Your task to perform on an android device: Do I have any events this weekend? Image 0: 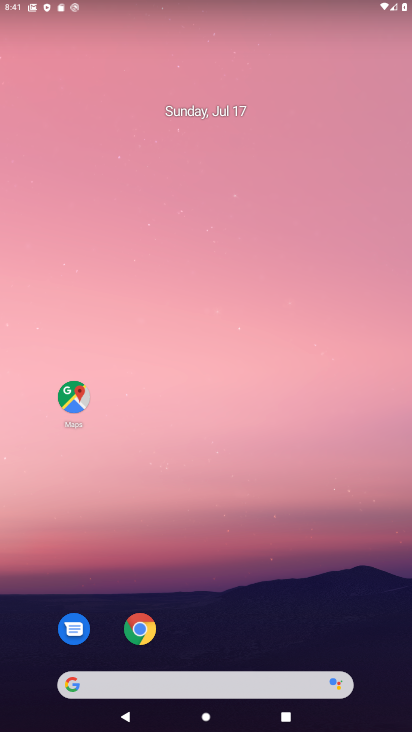
Step 0: drag from (377, 631) to (352, 172)
Your task to perform on an android device: Do I have any events this weekend? Image 1: 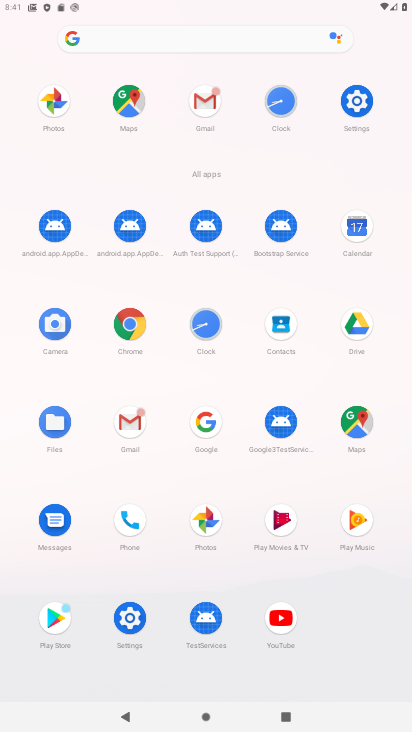
Step 1: click (357, 227)
Your task to perform on an android device: Do I have any events this weekend? Image 2: 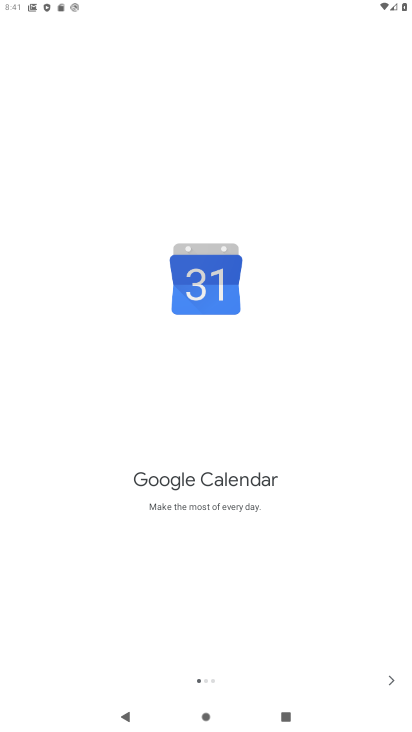
Step 2: click (392, 679)
Your task to perform on an android device: Do I have any events this weekend? Image 3: 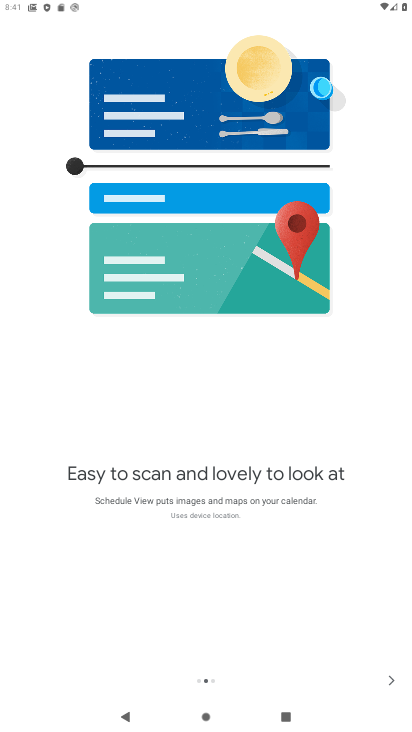
Step 3: click (392, 679)
Your task to perform on an android device: Do I have any events this weekend? Image 4: 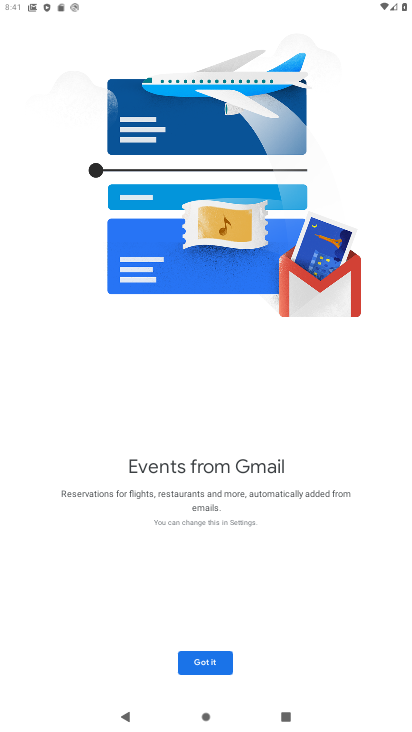
Step 4: click (207, 662)
Your task to perform on an android device: Do I have any events this weekend? Image 5: 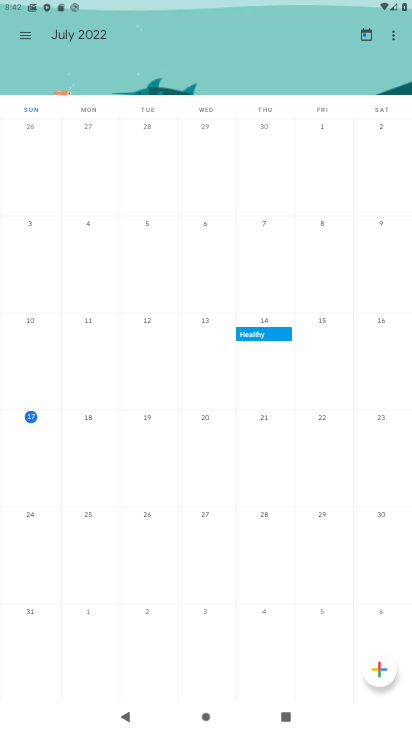
Step 5: click (24, 33)
Your task to perform on an android device: Do I have any events this weekend? Image 6: 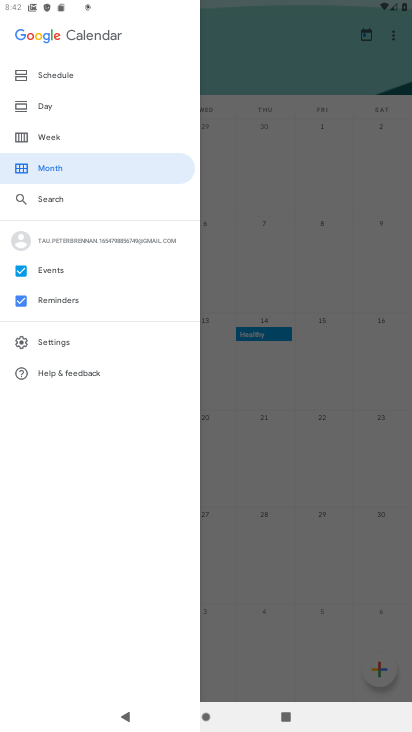
Step 6: click (53, 136)
Your task to perform on an android device: Do I have any events this weekend? Image 7: 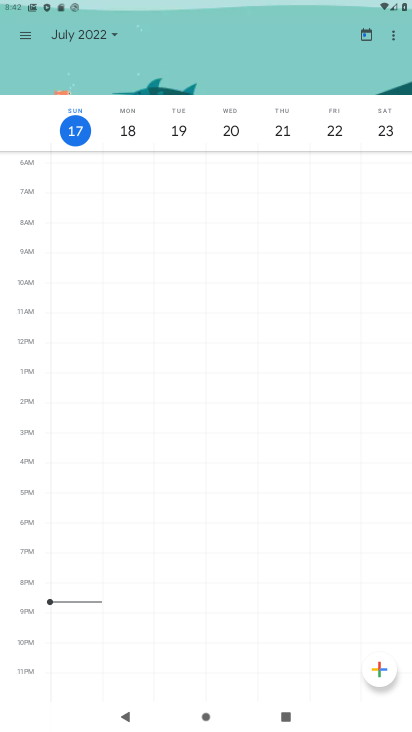
Step 7: task complete